Your task to perform on an android device: turn off data saver in the chrome app Image 0: 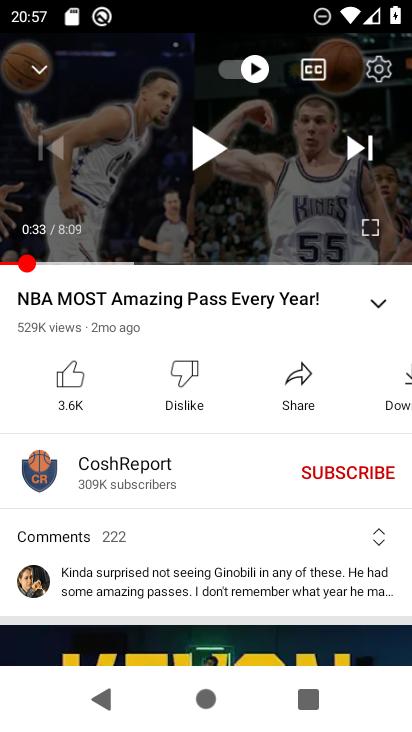
Step 0: press home button
Your task to perform on an android device: turn off data saver in the chrome app Image 1: 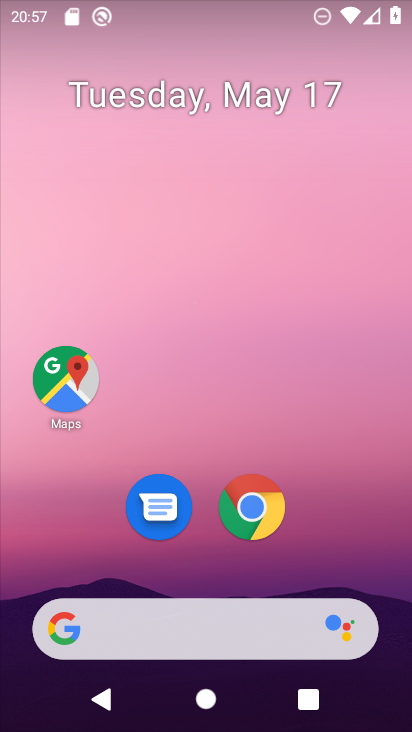
Step 1: click (267, 516)
Your task to perform on an android device: turn off data saver in the chrome app Image 2: 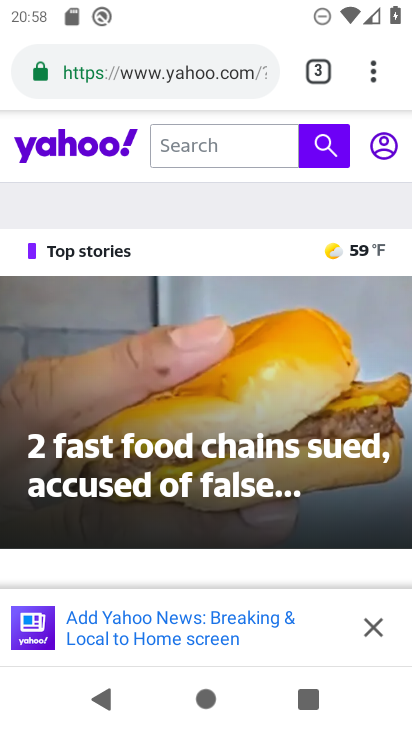
Step 2: click (375, 74)
Your task to perform on an android device: turn off data saver in the chrome app Image 3: 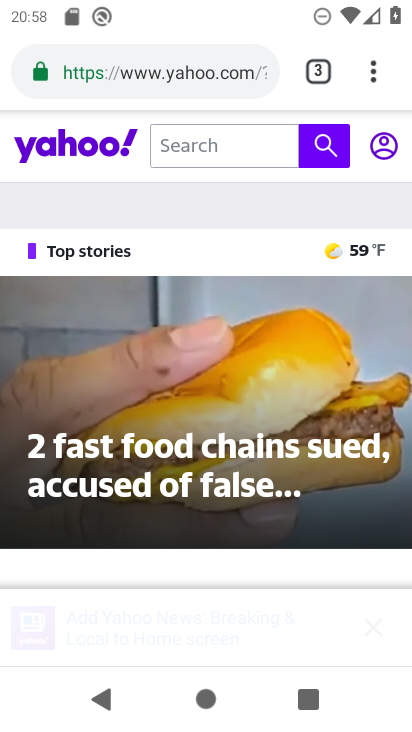
Step 3: click (375, 67)
Your task to perform on an android device: turn off data saver in the chrome app Image 4: 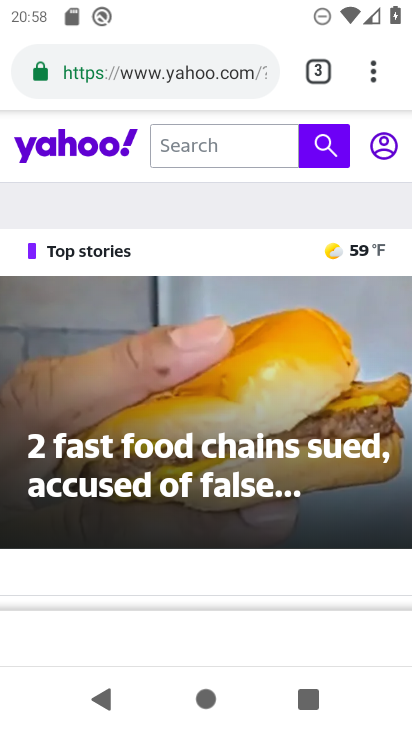
Step 4: drag from (375, 67) to (204, 518)
Your task to perform on an android device: turn off data saver in the chrome app Image 5: 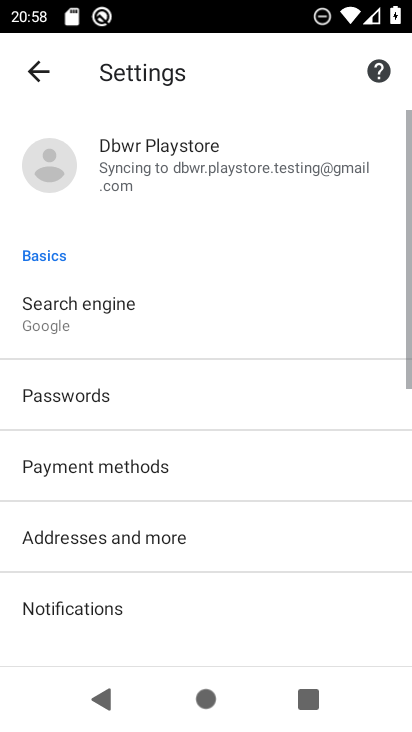
Step 5: drag from (233, 558) to (119, 57)
Your task to perform on an android device: turn off data saver in the chrome app Image 6: 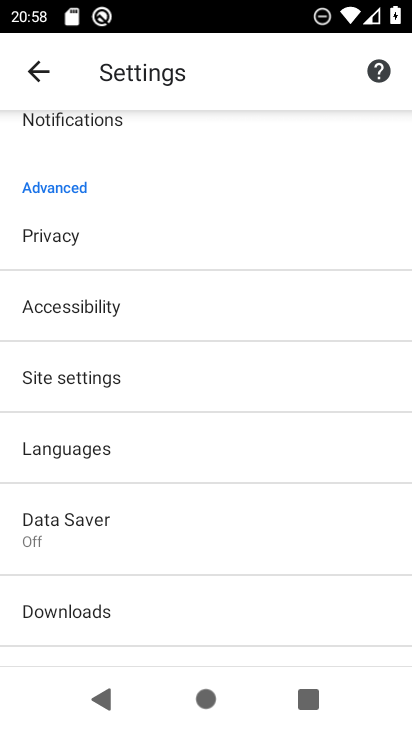
Step 6: click (59, 525)
Your task to perform on an android device: turn off data saver in the chrome app Image 7: 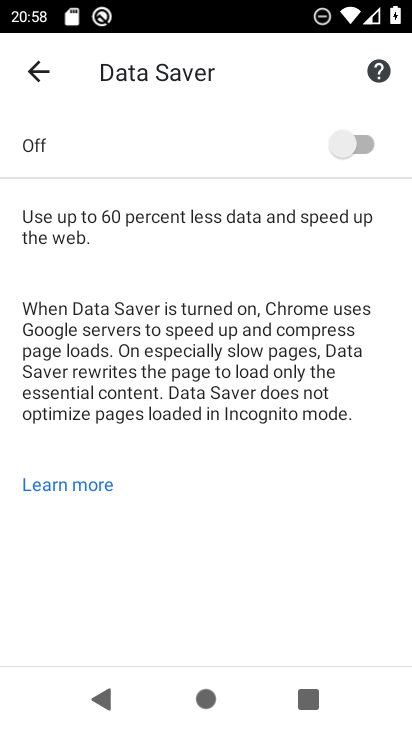
Step 7: task complete